Your task to perform on an android device: turn notification dots on Image 0: 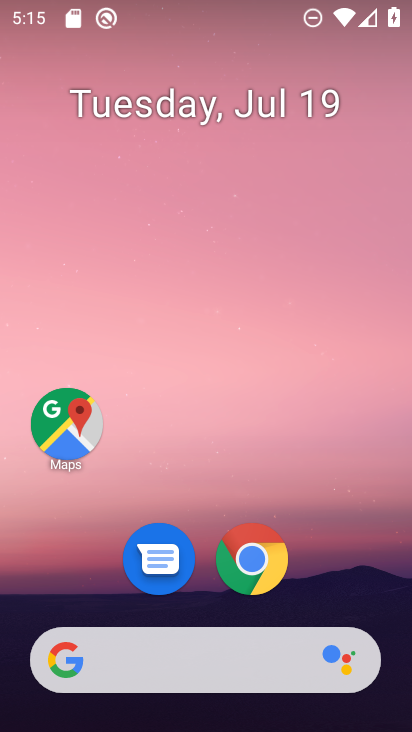
Step 0: drag from (193, 601) to (170, 18)
Your task to perform on an android device: turn notification dots on Image 1: 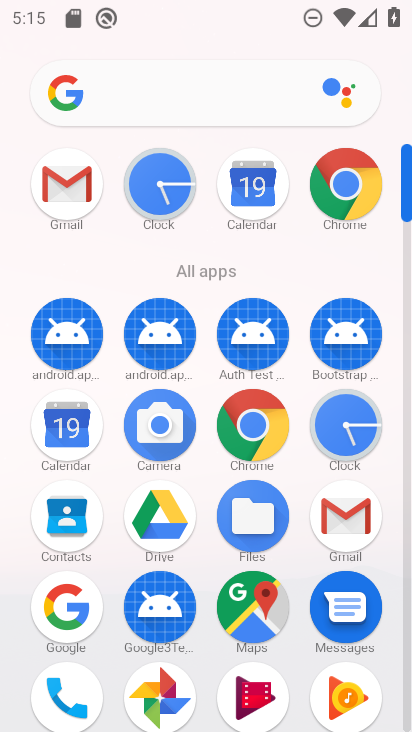
Step 1: drag from (188, 613) to (291, 33)
Your task to perform on an android device: turn notification dots on Image 2: 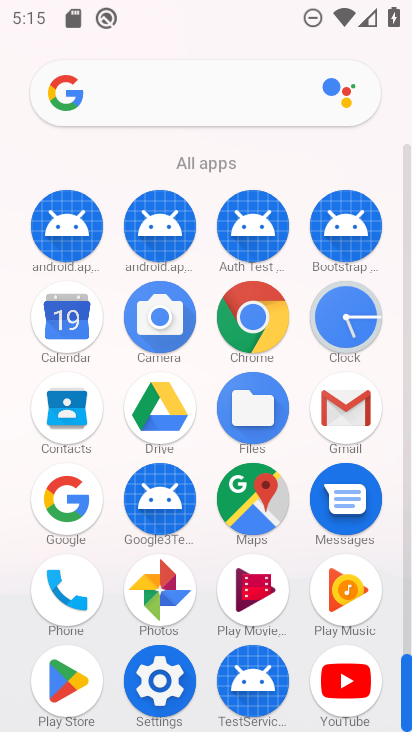
Step 2: click (147, 685)
Your task to perform on an android device: turn notification dots on Image 3: 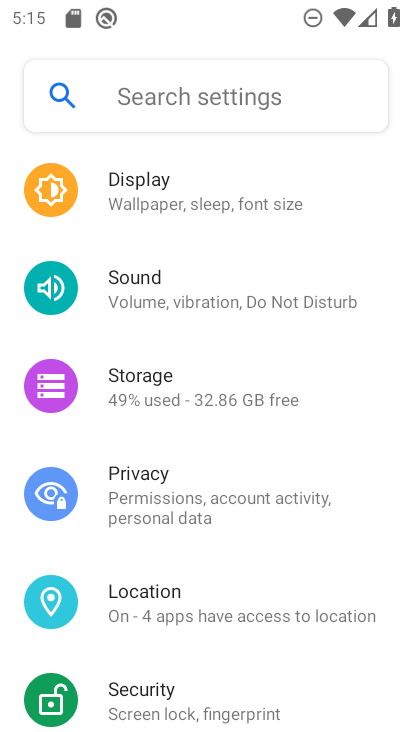
Step 3: drag from (244, 189) to (245, 723)
Your task to perform on an android device: turn notification dots on Image 4: 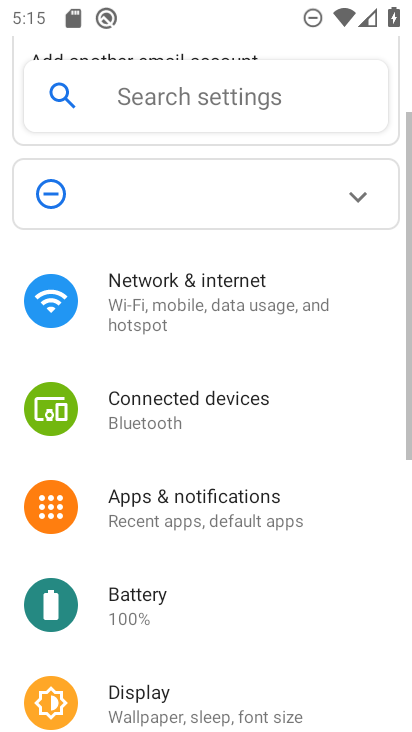
Step 4: click (211, 506)
Your task to perform on an android device: turn notification dots on Image 5: 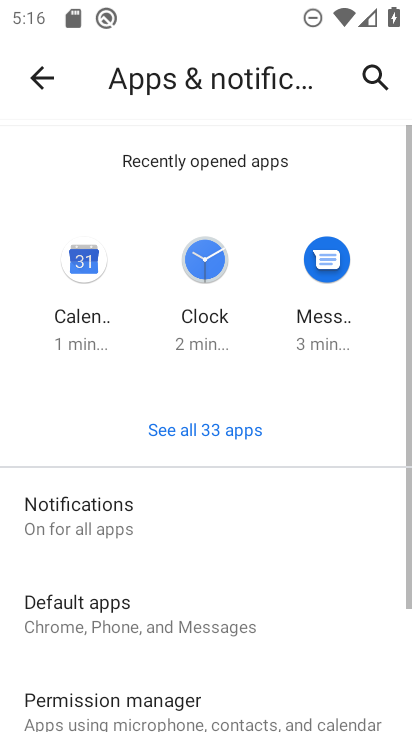
Step 5: click (193, 510)
Your task to perform on an android device: turn notification dots on Image 6: 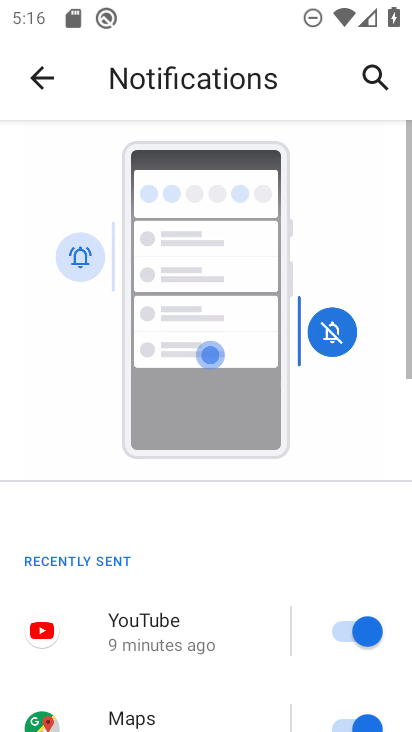
Step 6: drag from (159, 663) to (250, 102)
Your task to perform on an android device: turn notification dots on Image 7: 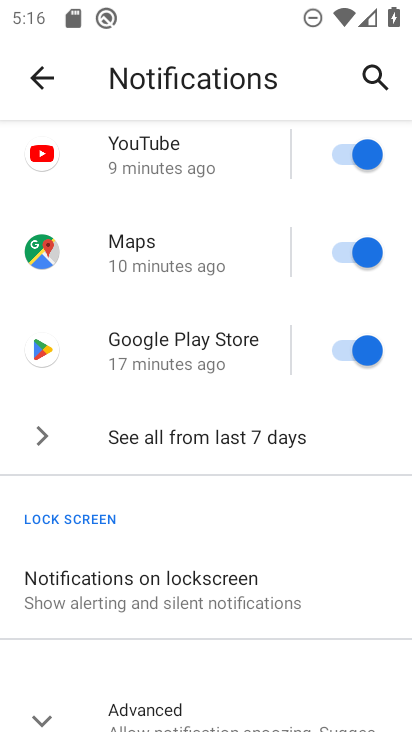
Step 7: drag from (145, 635) to (229, 133)
Your task to perform on an android device: turn notification dots on Image 8: 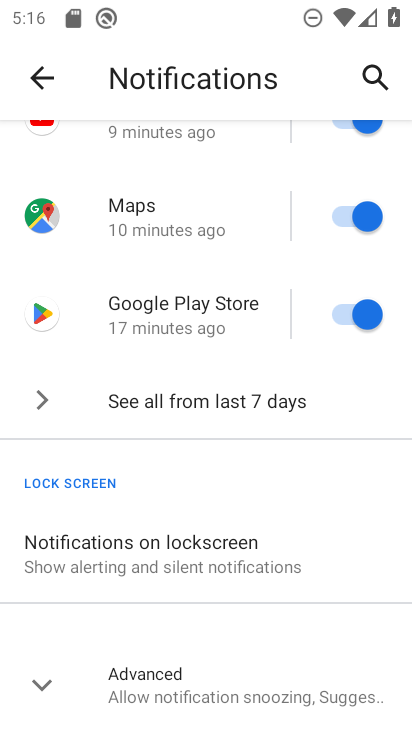
Step 8: click (194, 674)
Your task to perform on an android device: turn notification dots on Image 9: 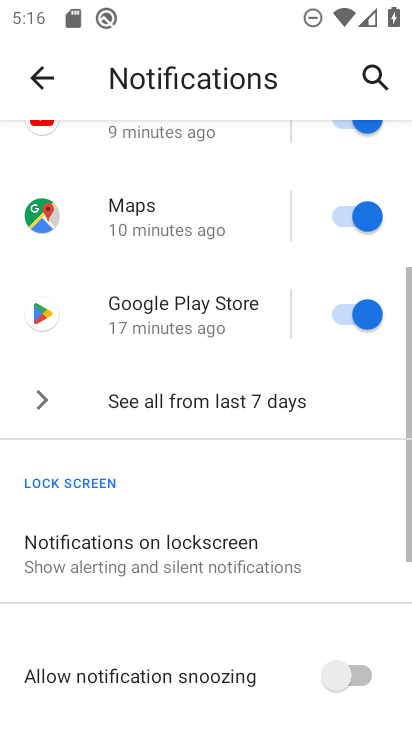
Step 9: task complete